Your task to perform on an android device: delete the emails in spam in the gmail app Image 0: 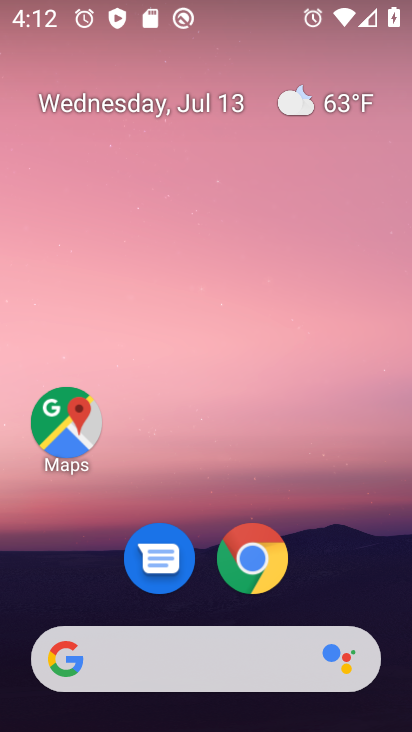
Step 0: drag from (192, 627) to (204, 273)
Your task to perform on an android device: delete the emails in spam in the gmail app Image 1: 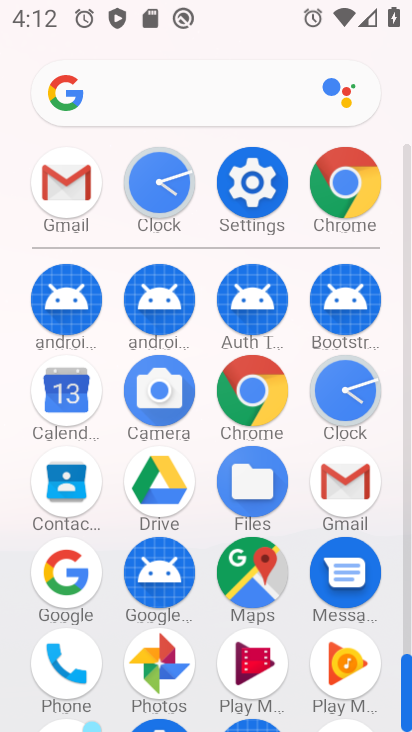
Step 1: click (337, 486)
Your task to perform on an android device: delete the emails in spam in the gmail app Image 2: 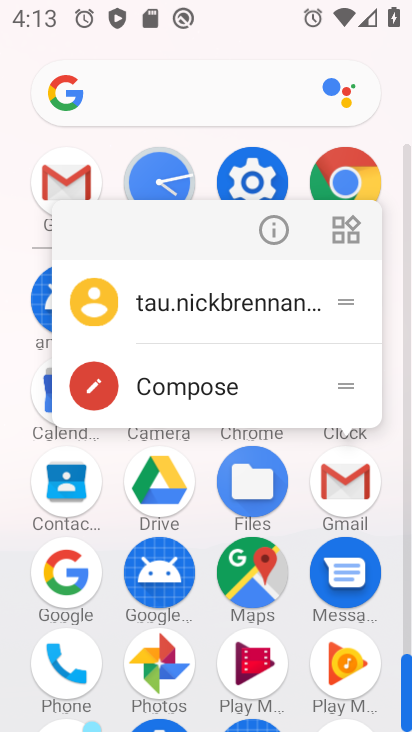
Step 2: click (344, 499)
Your task to perform on an android device: delete the emails in spam in the gmail app Image 3: 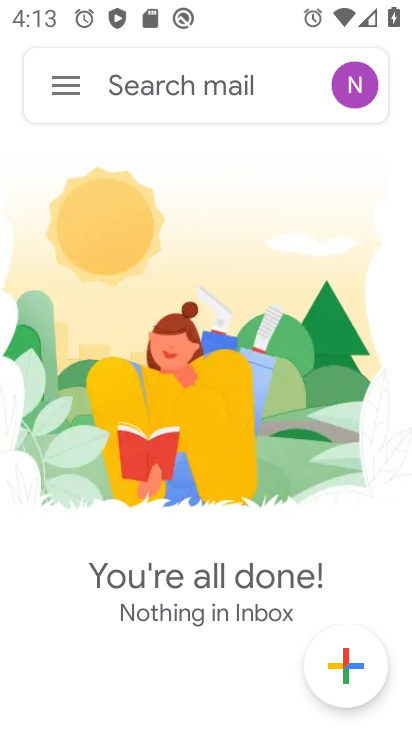
Step 3: click (53, 86)
Your task to perform on an android device: delete the emails in spam in the gmail app Image 4: 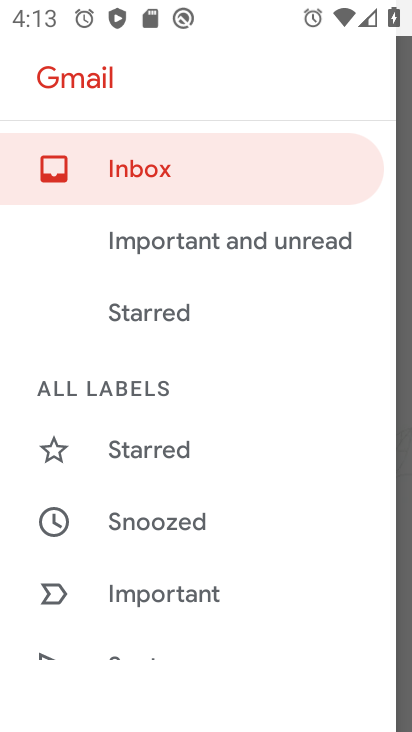
Step 4: drag from (155, 635) to (192, 300)
Your task to perform on an android device: delete the emails in spam in the gmail app Image 5: 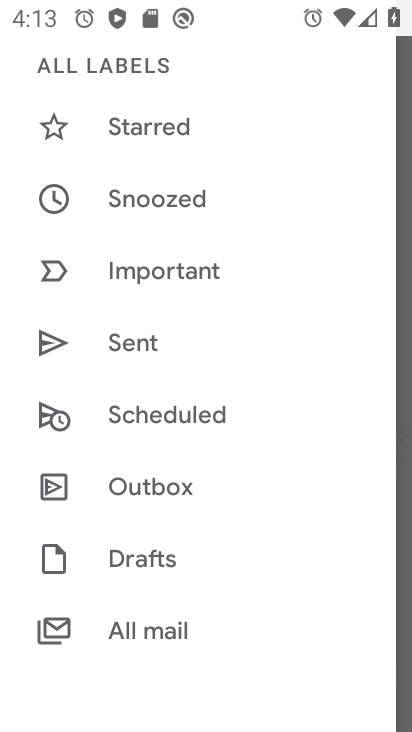
Step 5: drag from (139, 641) to (139, 289)
Your task to perform on an android device: delete the emails in spam in the gmail app Image 6: 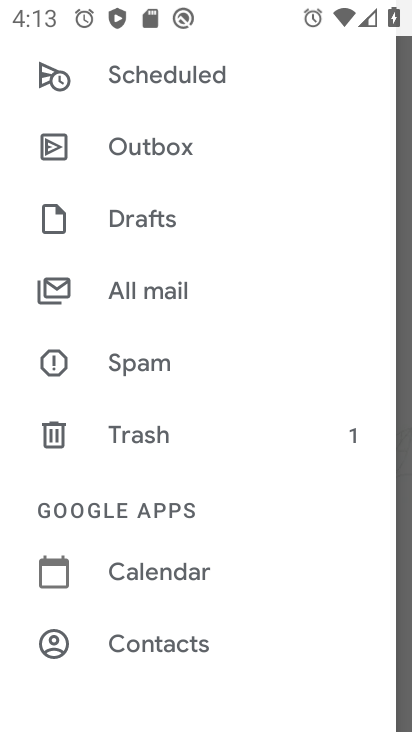
Step 6: click (147, 366)
Your task to perform on an android device: delete the emails in spam in the gmail app Image 7: 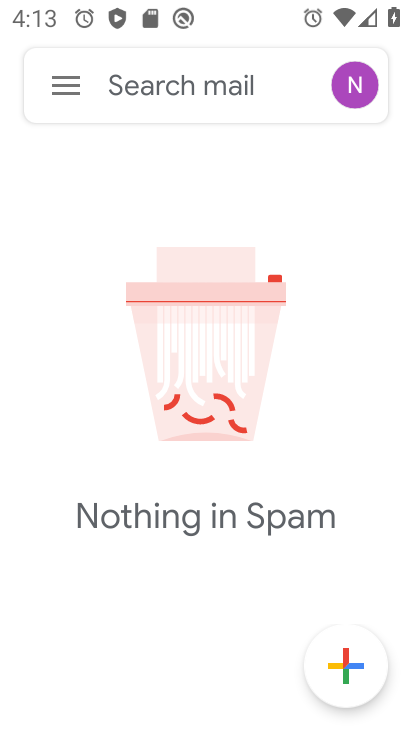
Step 7: task complete